Your task to perform on an android device: toggle show notifications on the lock screen Image 0: 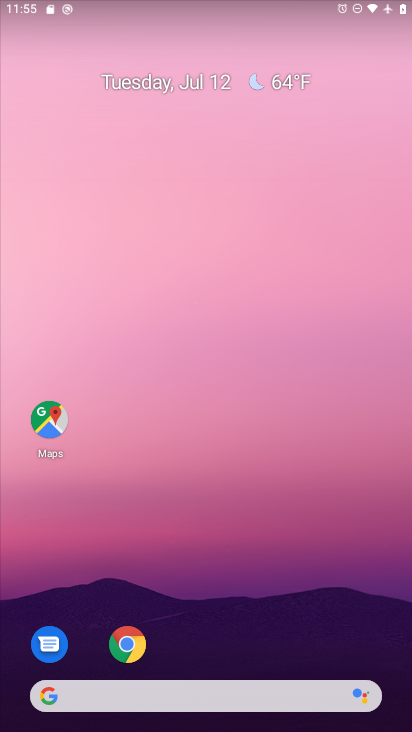
Step 0: drag from (334, 648) to (407, 322)
Your task to perform on an android device: toggle show notifications on the lock screen Image 1: 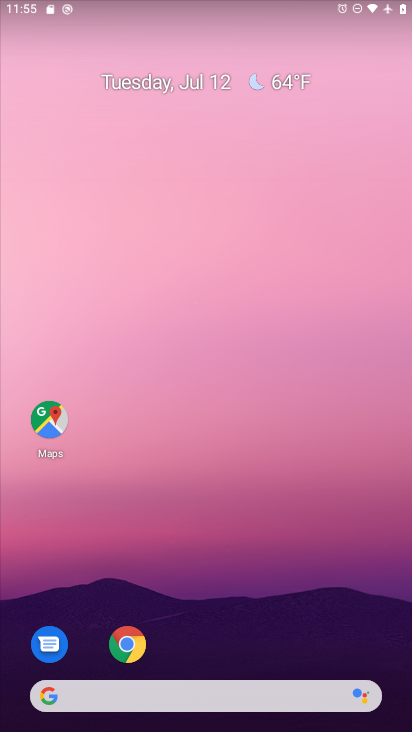
Step 1: click (369, 147)
Your task to perform on an android device: toggle show notifications on the lock screen Image 2: 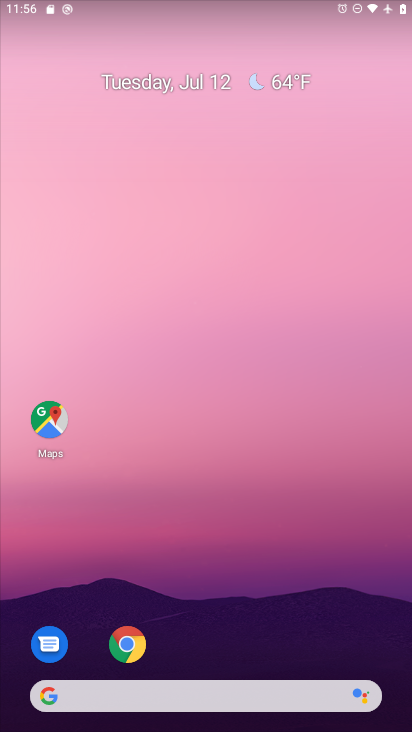
Step 2: drag from (252, 579) to (259, 111)
Your task to perform on an android device: toggle show notifications on the lock screen Image 3: 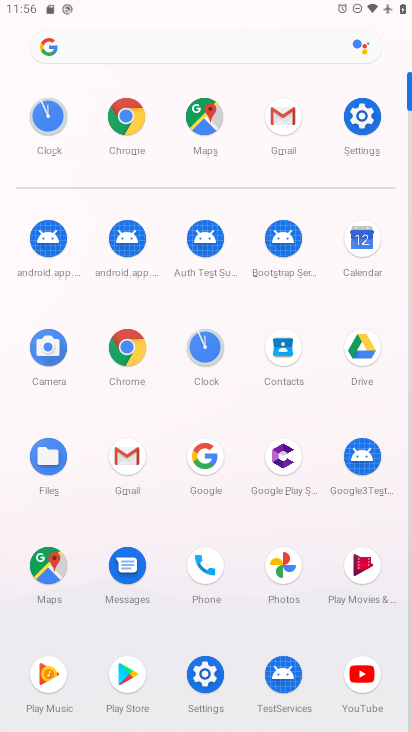
Step 3: click (213, 340)
Your task to perform on an android device: toggle show notifications on the lock screen Image 4: 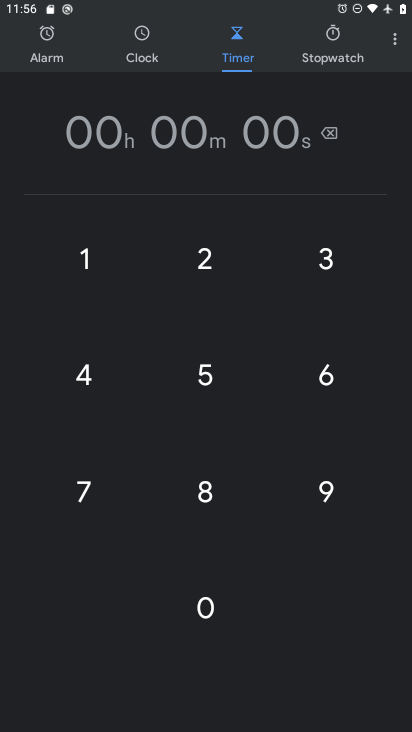
Step 4: press back button
Your task to perform on an android device: toggle show notifications on the lock screen Image 5: 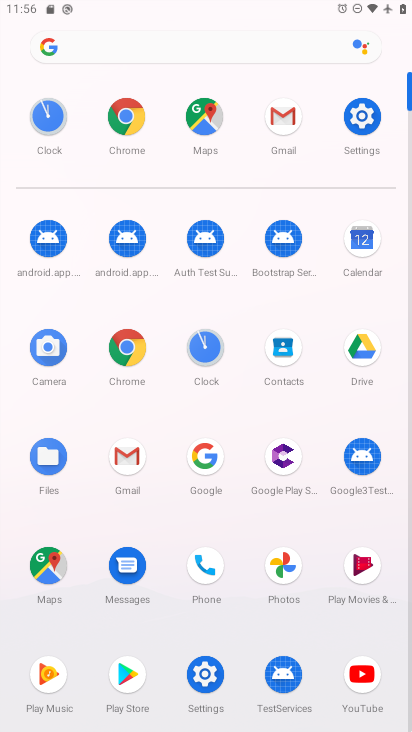
Step 5: click (362, 141)
Your task to perform on an android device: toggle show notifications on the lock screen Image 6: 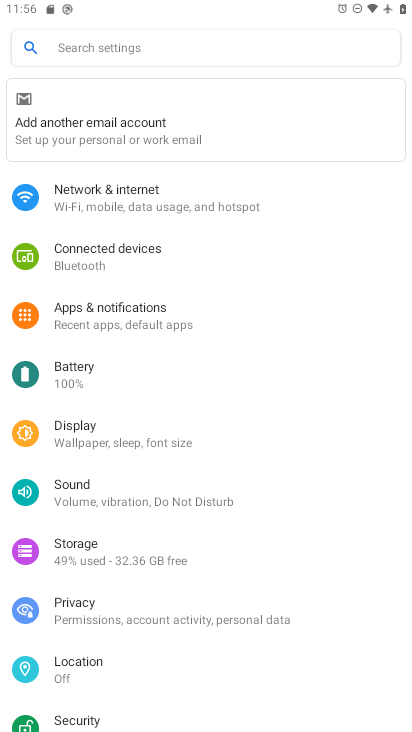
Step 6: click (149, 329)
Your task to perform on an android device: toggle show notifications on the lock screen Image 7: 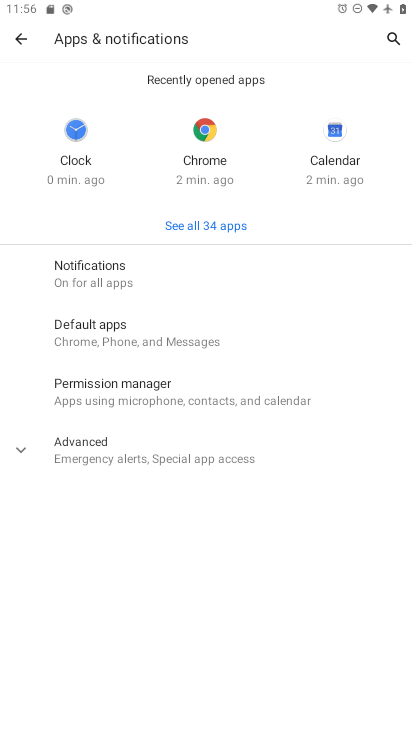
Step 7: click (146, 449)
Your task to perform on an android device: toggle show notifications on the lock screen Image 8: 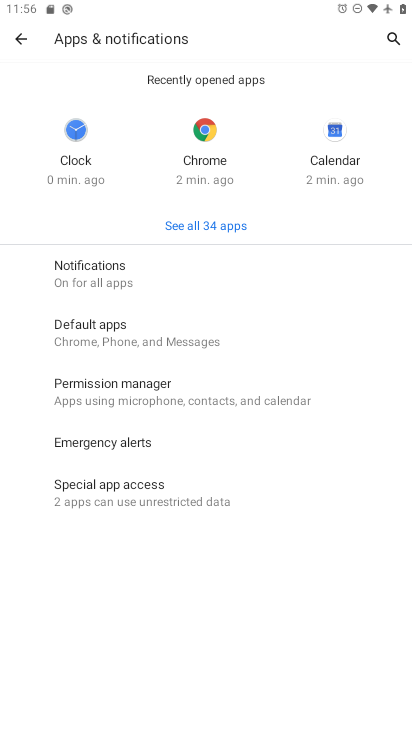
Step 8: click (126, 283)
Your task to perform on an android device: toggle show notifications on the lock screen Image 9: 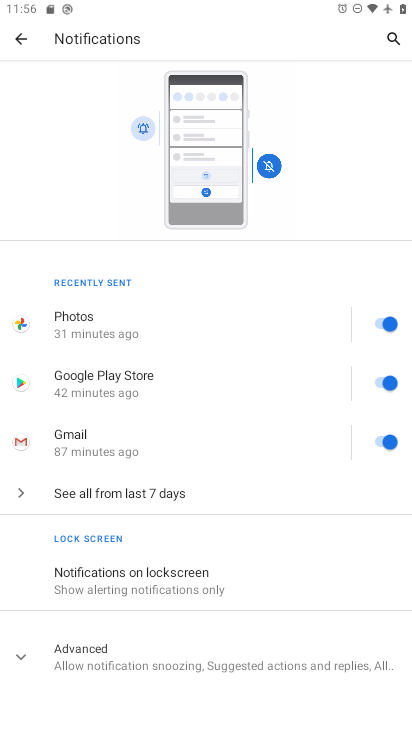
Step 9: click (172, 580)
Your task to perform on an android device: toggle show notifications on the lock screen Image 10: 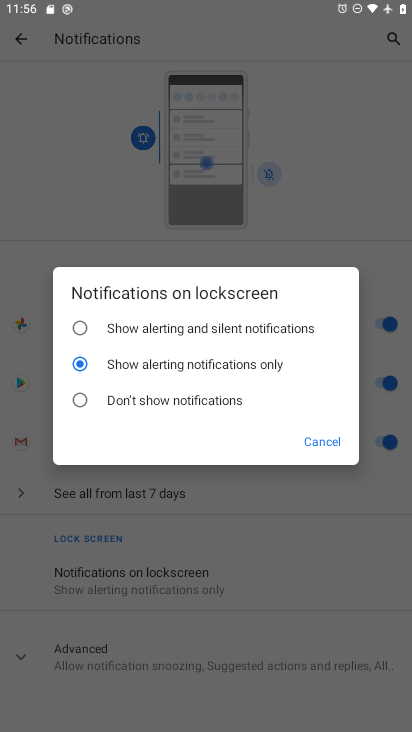
Step 10: click (332, 444)
Your task to perform on an android device: toggle show notifications on the lock screen Image 11: 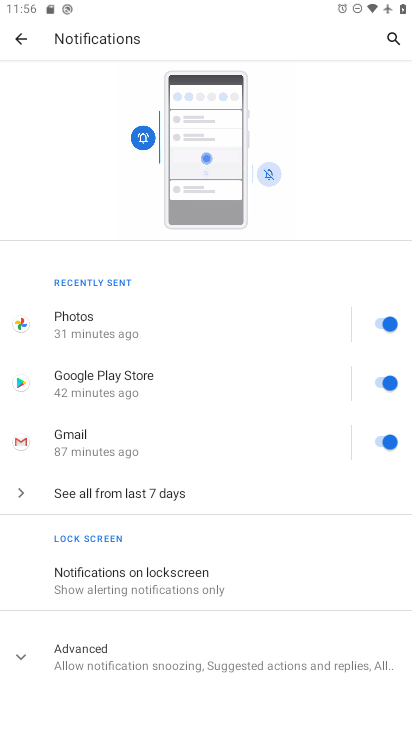
Step 11: task complete